Your task to perform on an android device: Go to Wikipedia Image 0: 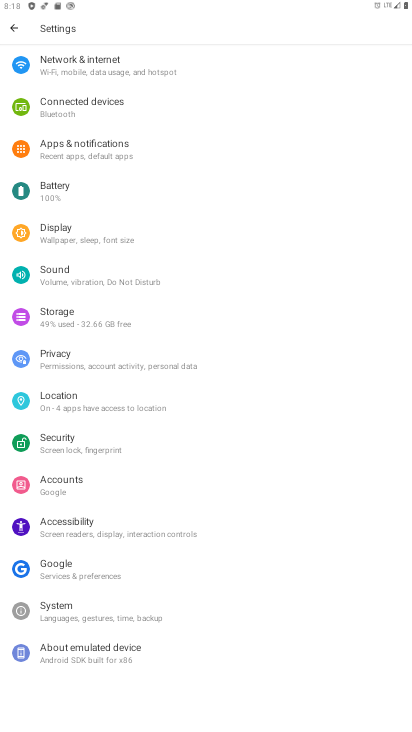
Step 0: press home button
Your task to perform on an android device: Go to Wikipedia Image 1: 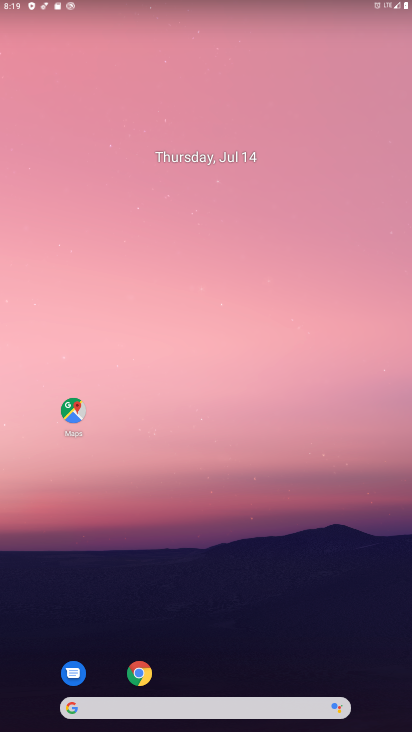
Step 1: click (140, 673)
Your task to perform on an android device: Go to Wikipedia Image 2: 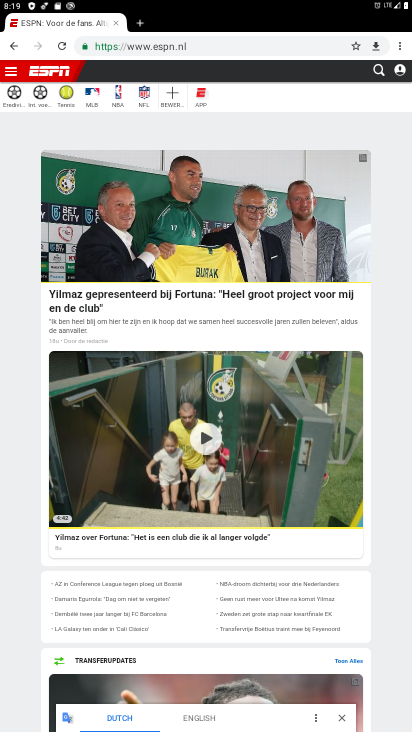
Step 2: click (278, 46)
Your task to perform on an android device: Go to Wikipedia Image 3: 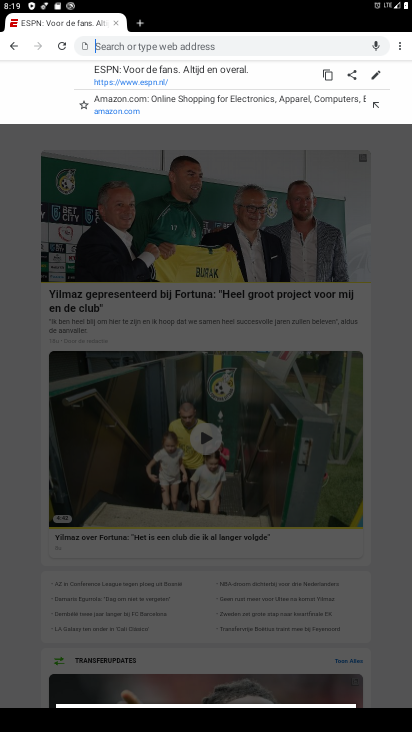
Step 3: type "Wikipedia"
Your task to perform on an android device: Go to Wikipedia Image 4: 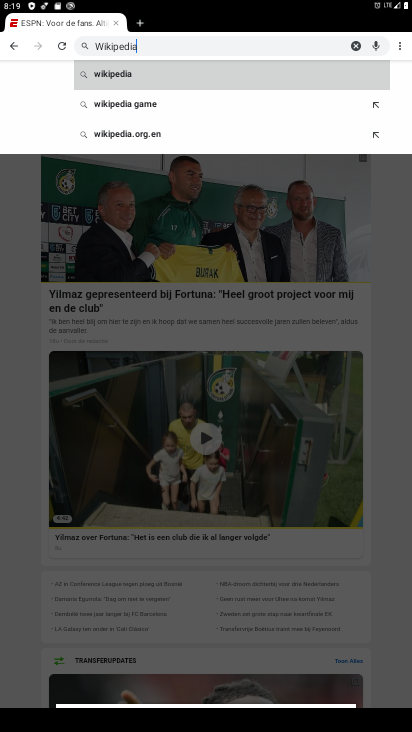
Step 4: type ""
Your task to perform on an android device: Go to Wikipedia Image 5: 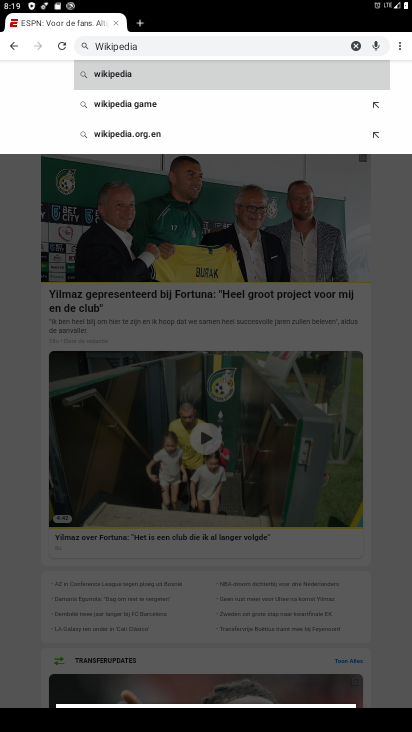
Step 5: click (159, 68)
Your task to perform on an android device: Go to Wikipedia Image 6: 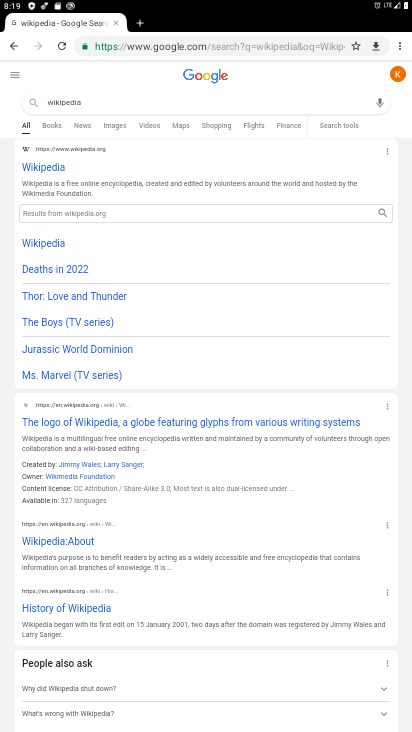
Step 6: click (45, 167)
Your task to perform on an android device: Go to Wikipedia Image 7: 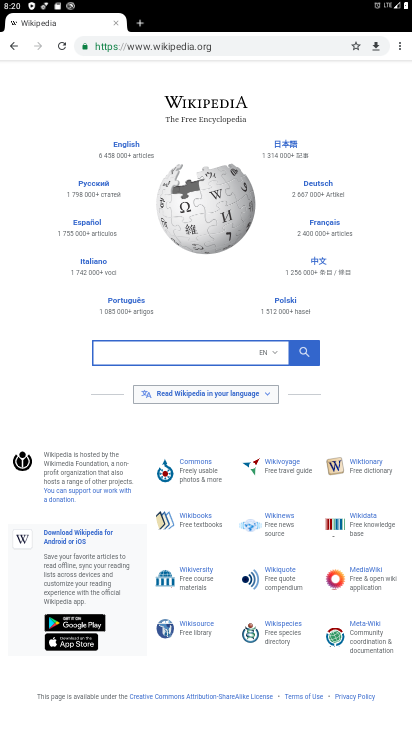
Step 7: task complete